Your task to perform on an android device: turn pop-ups on in chrome Image 0: 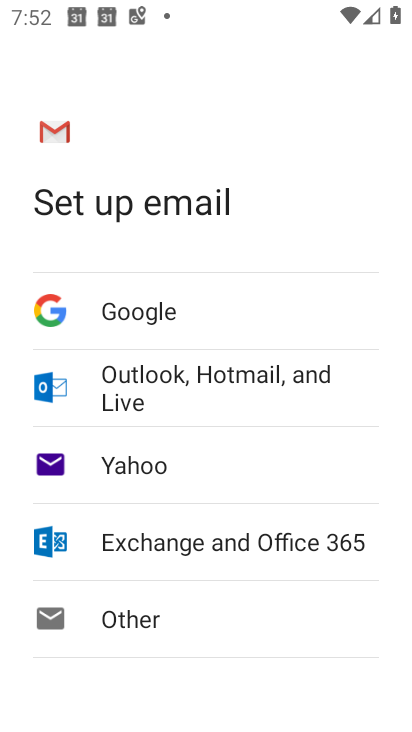
Step 0: press home button
Your task to perform on an android device: turn pop-ups on in chrome Image 1: 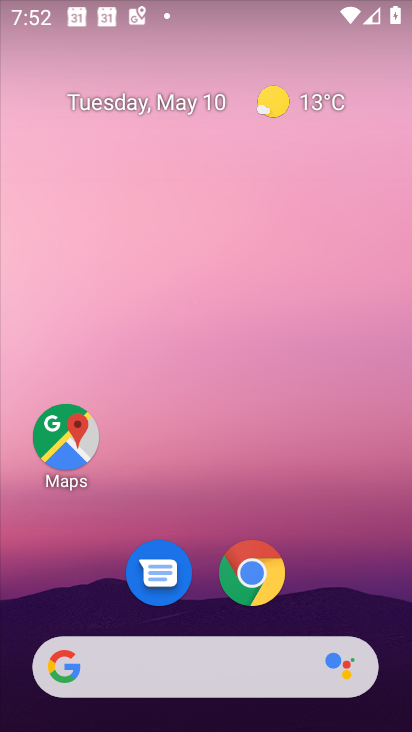
Step 1: click (254, 578)
Your task to perform on an android device: turn pop-ups on in chrome Image 2: 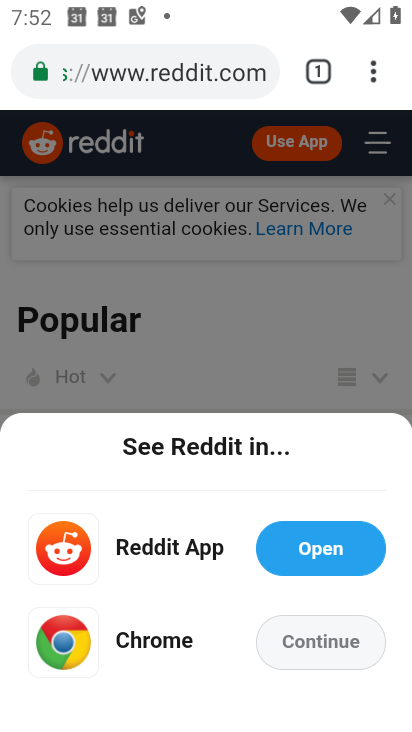
Step 2: click (378, 74)
Your task to perform on an android device: turn pop-ups on in chrome Image 3: 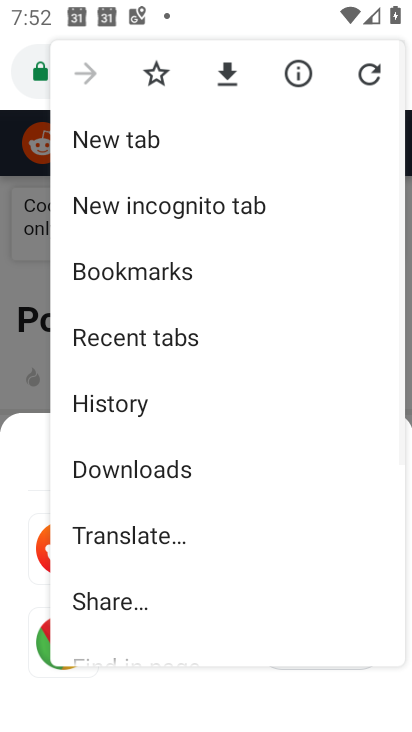
Step 3: drag from (199, 565) to (193, 110)
Your task to perform on an android device: turn pop-ups on in chrome Image 4: 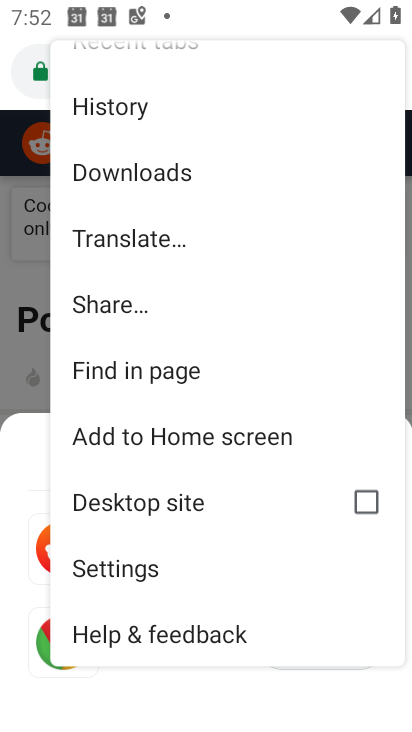
Step 4: click (123, 567)
Your task to perform on an android device: turn pop-ups on in chrome Image 5: 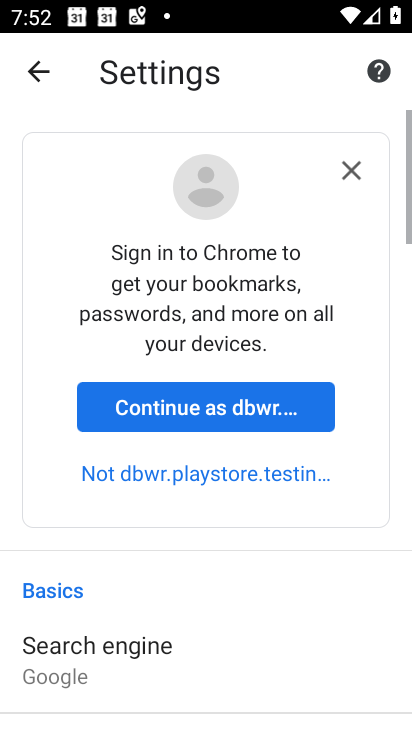
Step 5: drag from (194, 600) to (183, 157)
Your task to perform on an android device: turn pop-ups on in chrome Image 6: 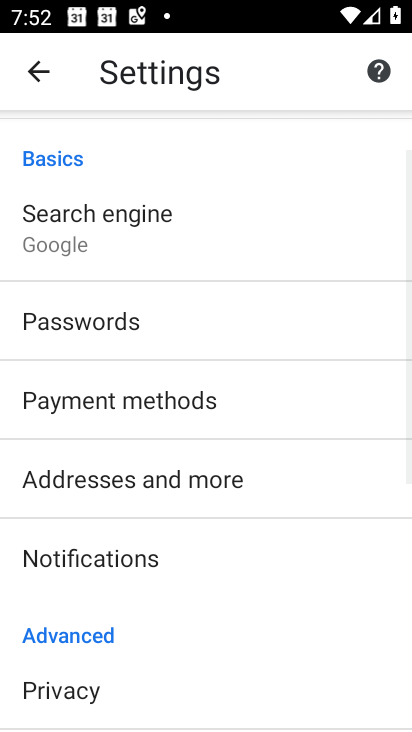
Step 6: drag from (200, 544) to (187, 161)
Your task to perform on an android device: turn pop-ups on in chrome Image 7: 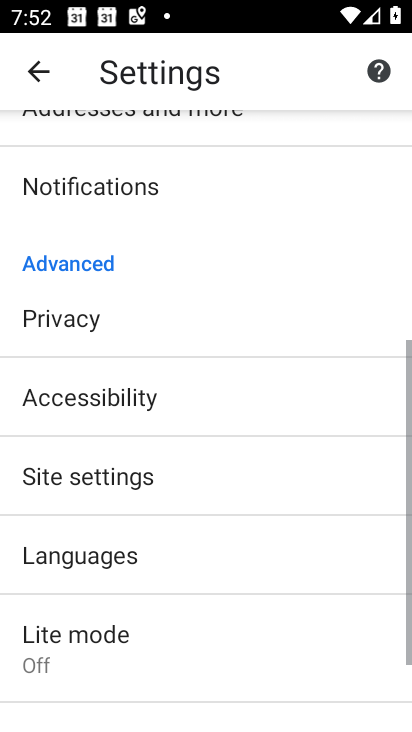
Step 7: click (113, 478)
Your task to perform on an android device: turn pop-ups on in chrome Image 8: 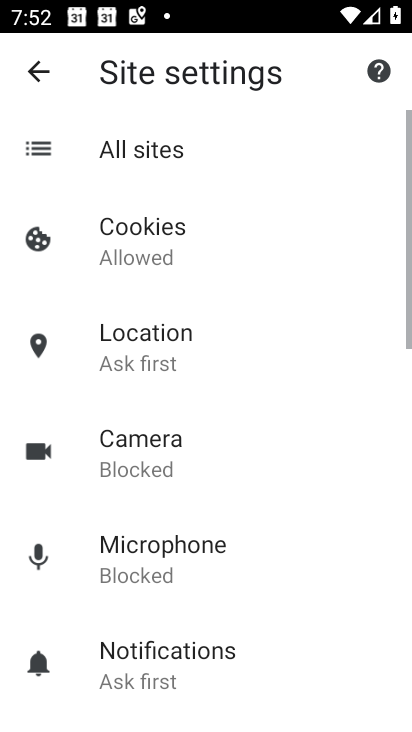
Step 8: drag from (260, 592) to (229, 254)
Your task to perform on an android device: turn pop-ups on in chrome Image 9: 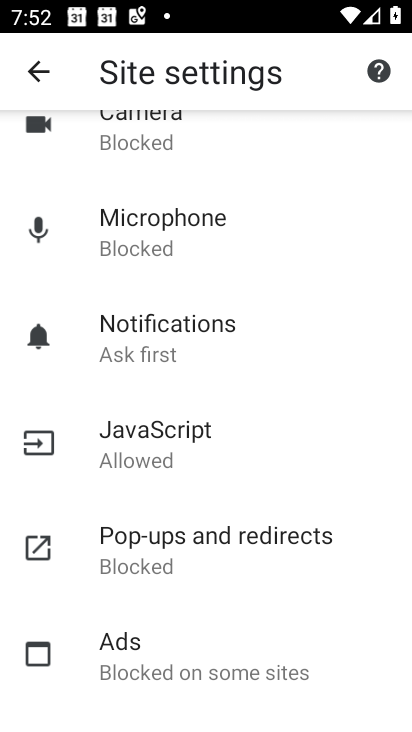
Step 9: click (161, 541)
Your task to perform on an android device: turn pop-ups on in chrome Image 10: 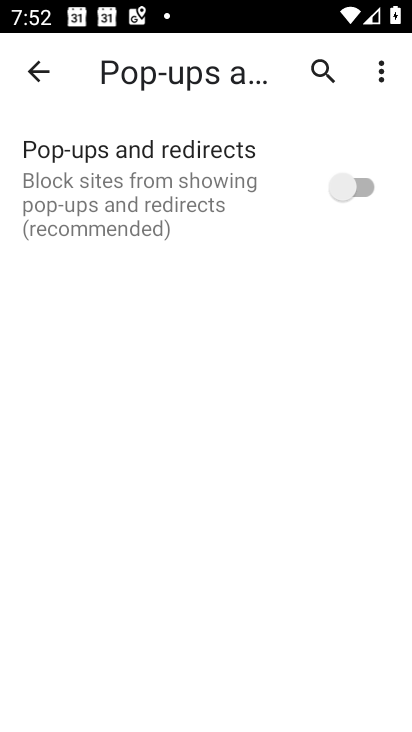
Step 10: click (341, 194)
Your task to perform on an android device: turn pop-ups on in chrome Image 11: 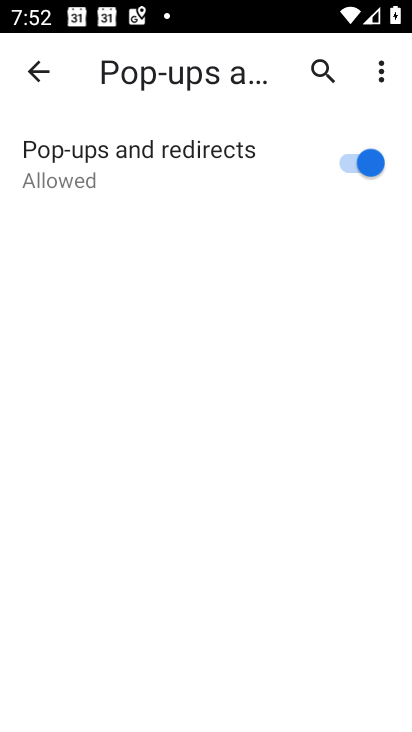
Step 11: task complete